Your task to perform on an android device: Open the phone app and click the voicemail tab. Image 0: 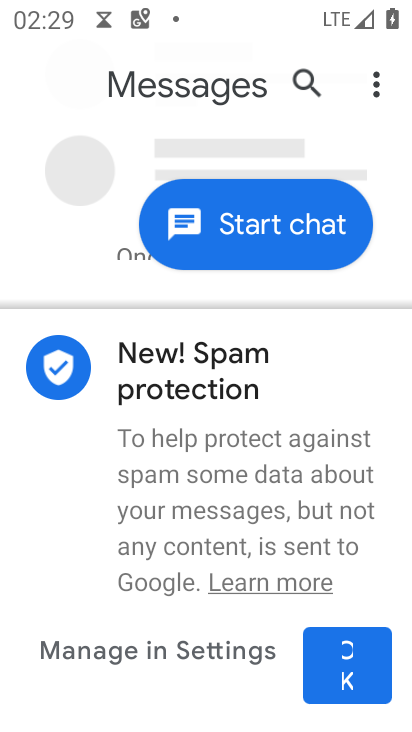
Step 0: press home button
Your task to perform on an android device: Open the phone app and click the voicemail tab. Image 1: 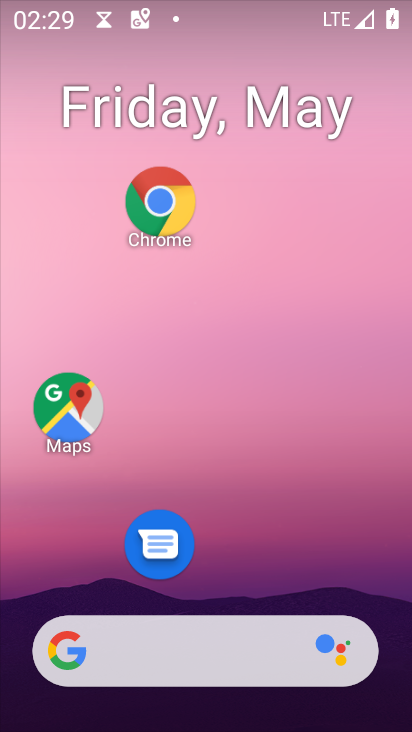
Step 1: drag from (225, 578) to (244, 175)
Your task to perform on an android device: Open the phone app and click the voicemail tab. Image 2: 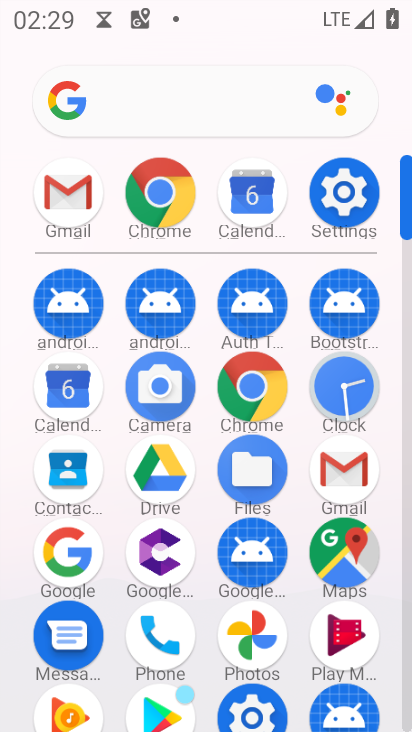
Step 2: click (164, 632)
Your task to perform on an android device: Open the phone app and click the voicemail tab. Image 3: 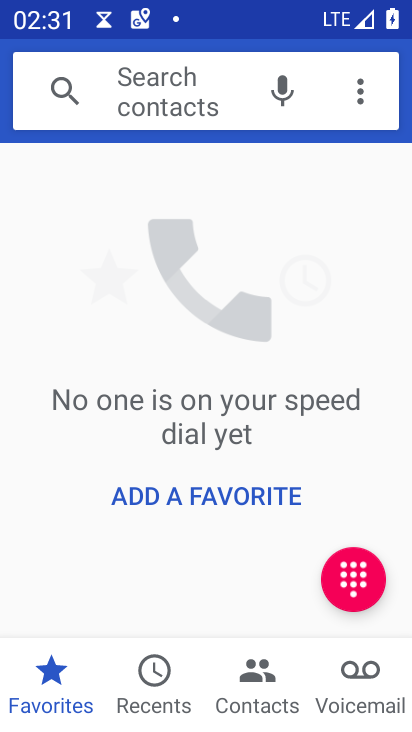
Step 3: click (387, 716)
Your task to perform on an android device: Open the phone app and click the voicemail tab. Image 4: 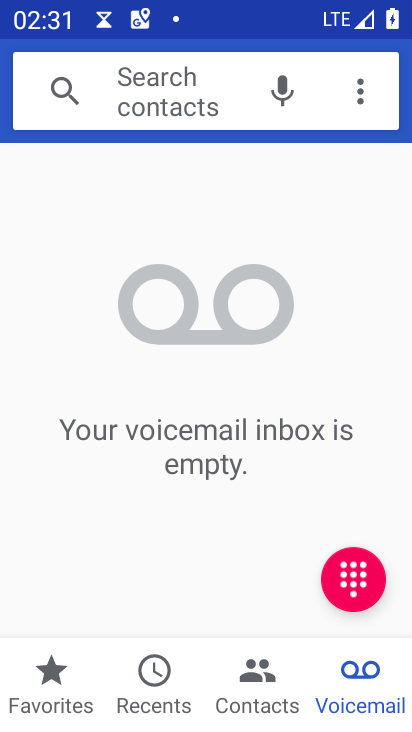
Step 4: task complete